Your task to perform on an android device: Open Google Image 0: 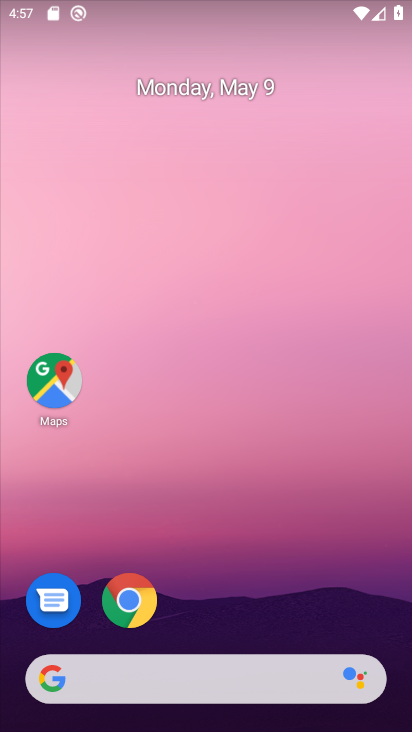
Step 0: drag from (314, 675) to (332, 80)
Your task to perform on an android device: Open Google Image 1: 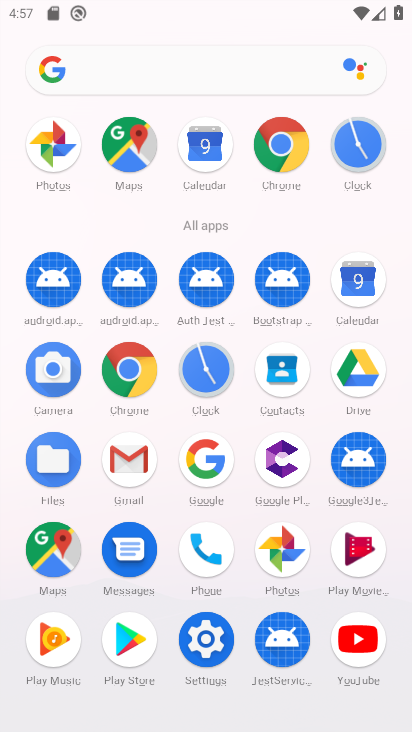
Step 1: click (146, 379)
Your task to perform on an android device: Open Google Image 2: 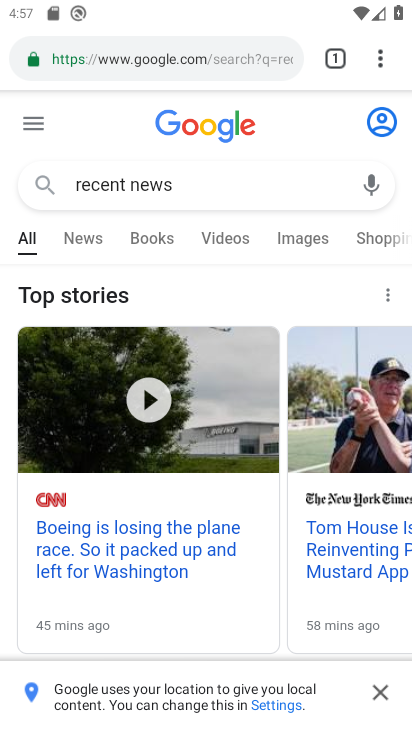
Step 2: task complete